Your task to perform on an android device: Open Reddit.com Image 0: 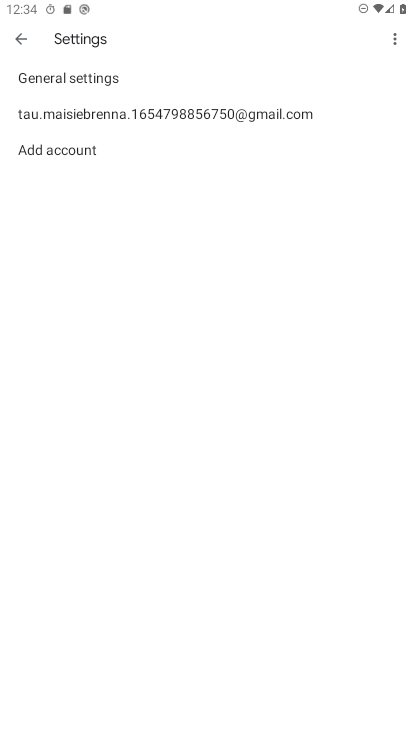
Step 0: press home button
Your task to perform on an android device: Open Reddit.com Image 1: 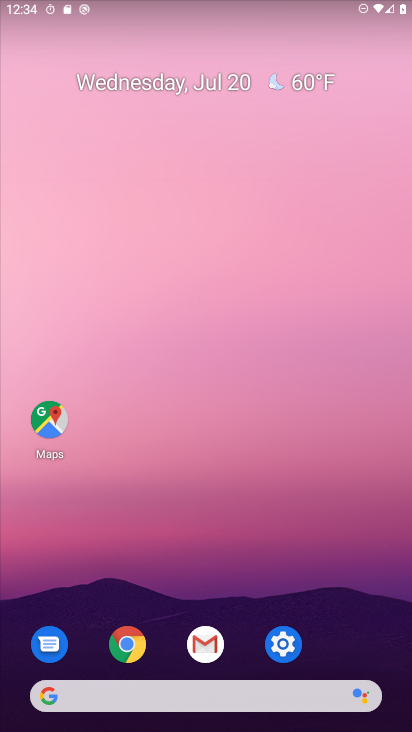
Step 1: click (127, 651)
Your task to perform on an android device: Open Reddit.com Image 2: 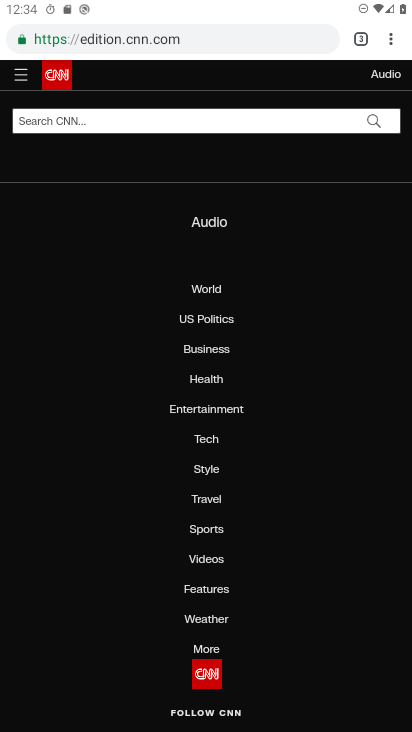
Step 2: click (164, 43)
Your task to perform on an android device: Open Reddit.com Image 3: 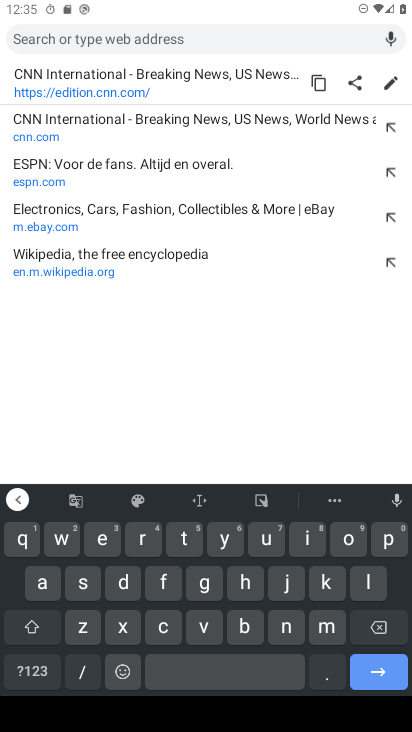
Step 3: click (150, 540)
Your task to perform on an android device: Open Reddit.com Image 4: 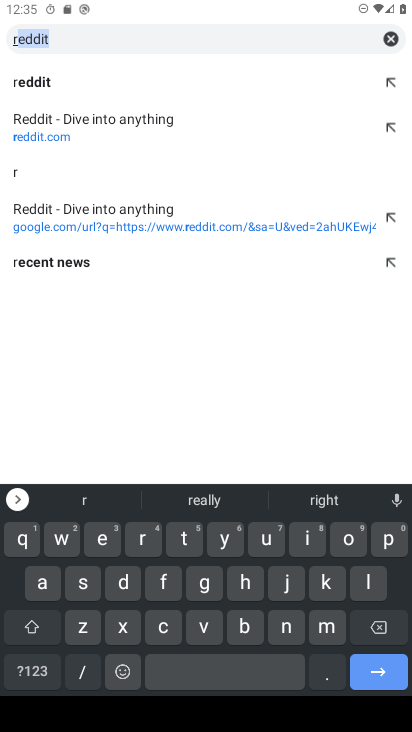
Step 4: click (41, 85)
Your task to perform on an android device: Open Reddit.com Image 5: 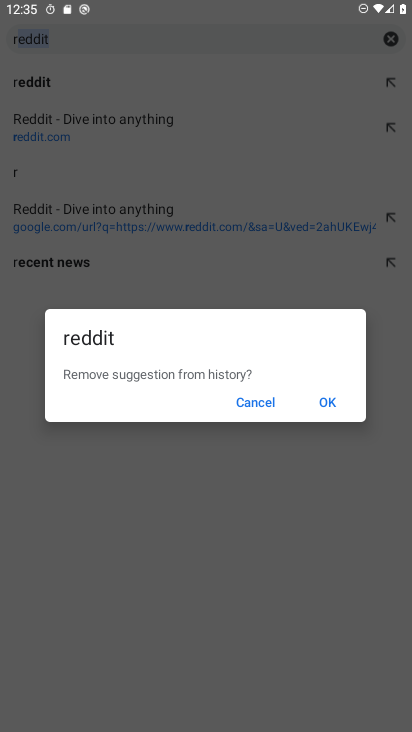
Step 5: click (266, 405)
Your task to perform on an android device: Open Reddit.com Image 6: 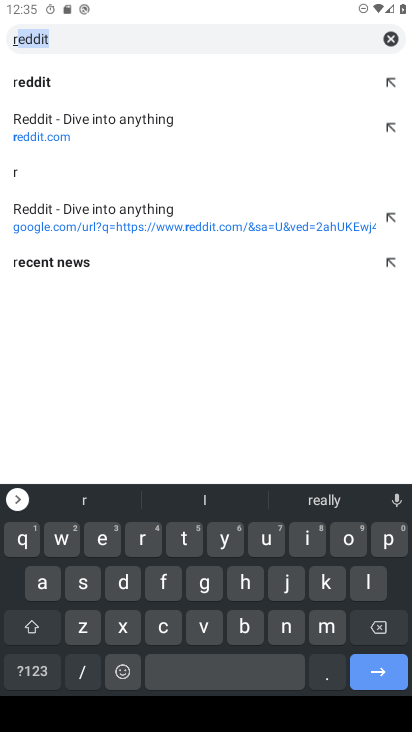
Step 6: click (392, 669)
Your task to perform on an android device: Open Reddit.com Image 7: 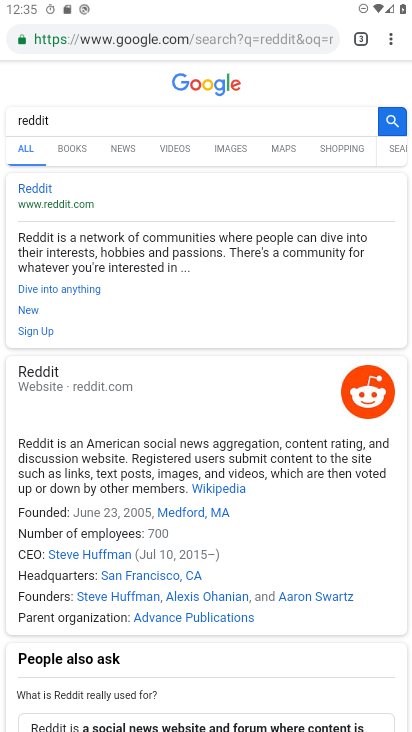
Step 7: click (29, 193)
Your task to perform on an android device: Open Reddit.com Image 8: 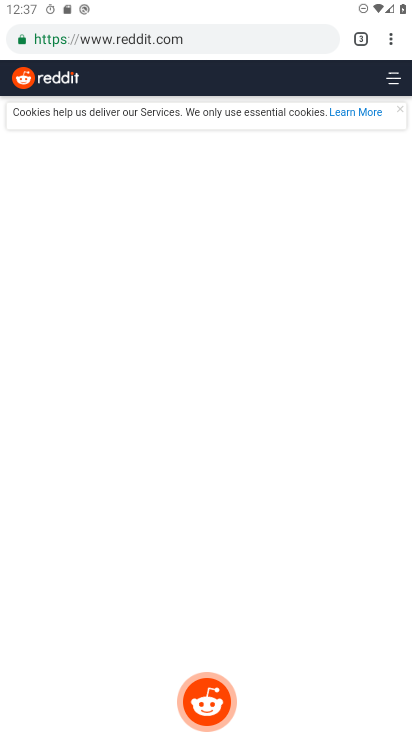
Step 8: task complete